Your task to perform on an android device: Open privacy settings Image 0: 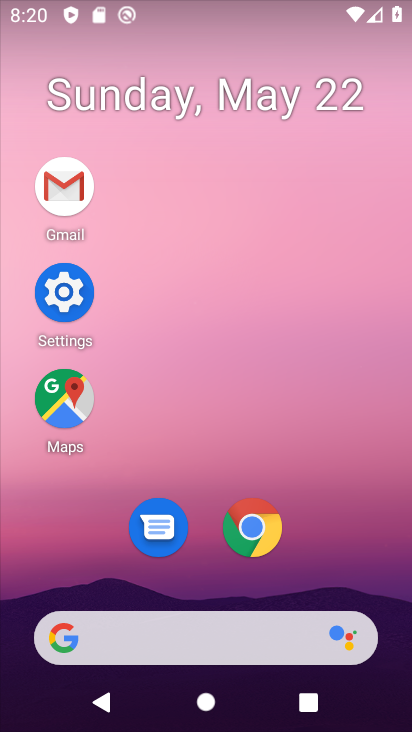
Step 0: click (82, 298)
Your task to perform on an android device: Open privacy settings Image 1: 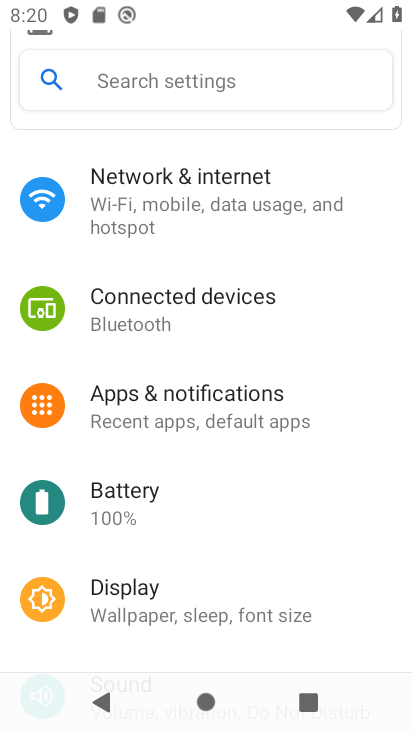
Step 1: drag from (262, 511) to (311, 116)
Your task to perform on an android device: Open privacy settings Image 2: 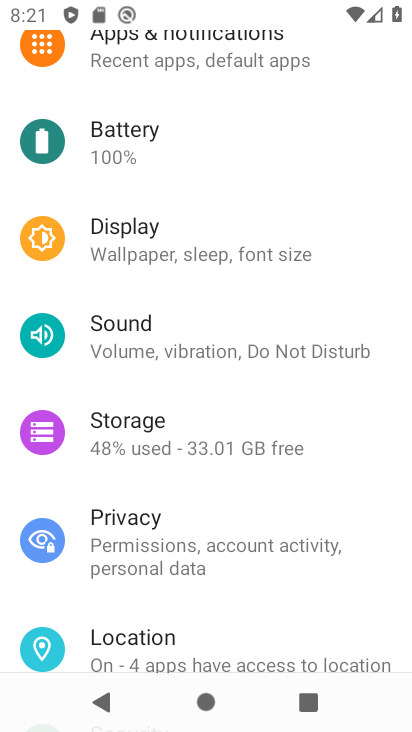
Step 2: click (235, 529)
Your task to perform on an android device: Open privacy settings Image 3: 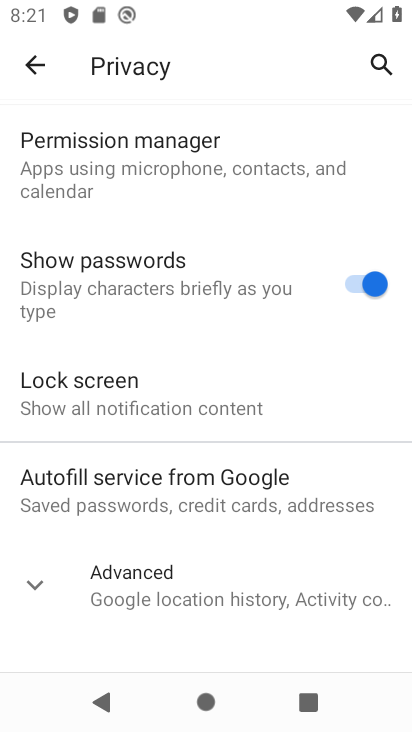
Step 3: task complete